Your task to perform on an android device: open app "Venmo" (install if not already installed) and go to login screen Image 0: 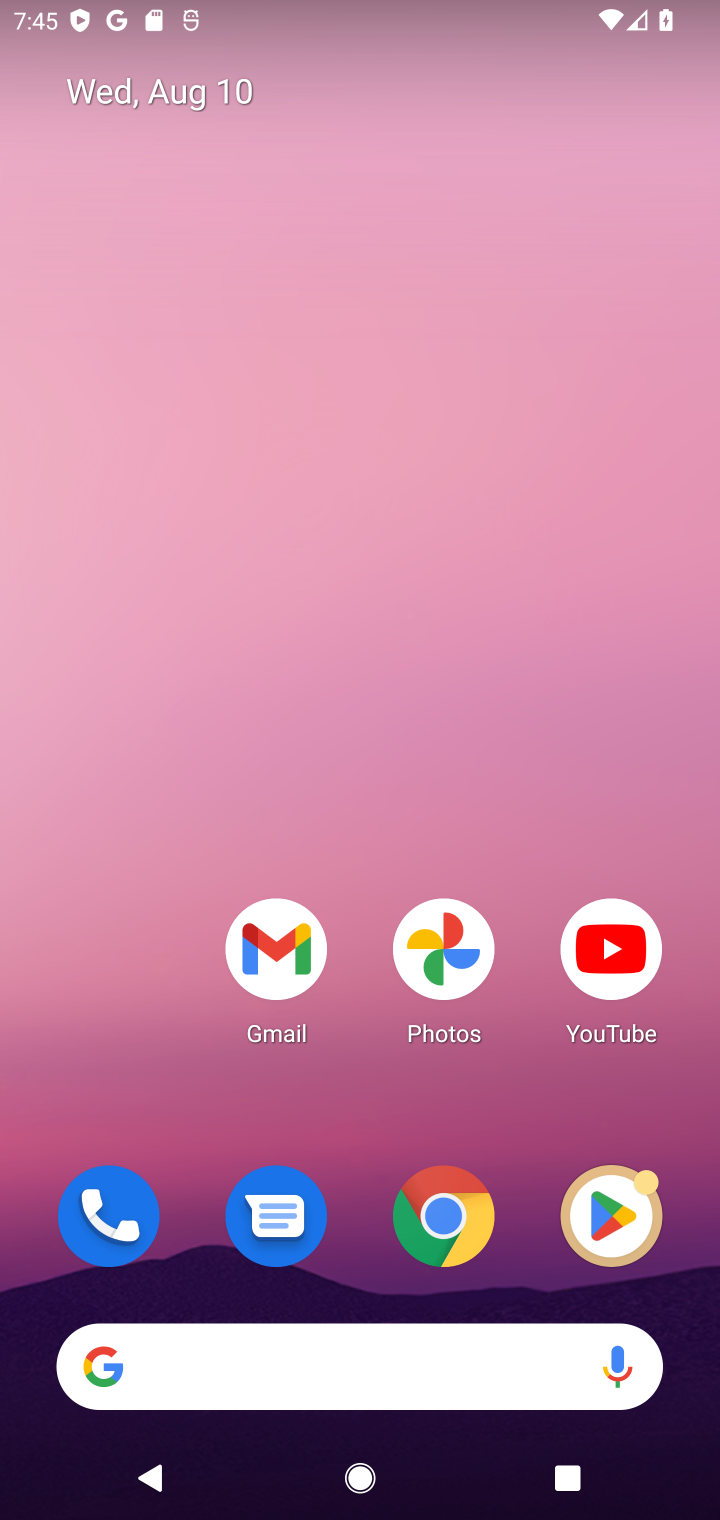
Step 0: click (593, 1219)
Your task to perform on an android device: open app "Venmo" (install if not already installed) and go to login screen Image 1: 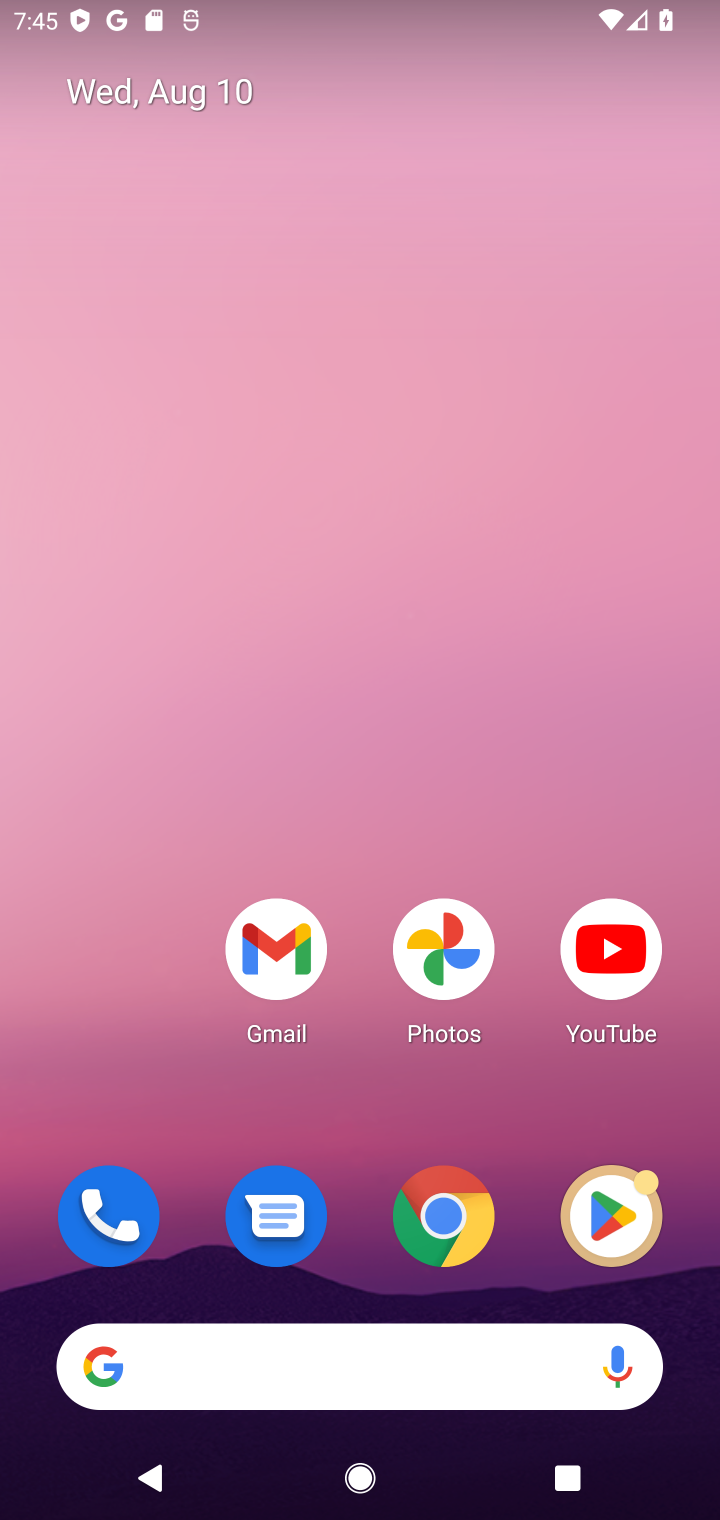
Step 1: click (600, 1219)
Your task to perform on an android device: open app "Venmo" (install if not already installed) and go to login screen Image 2: 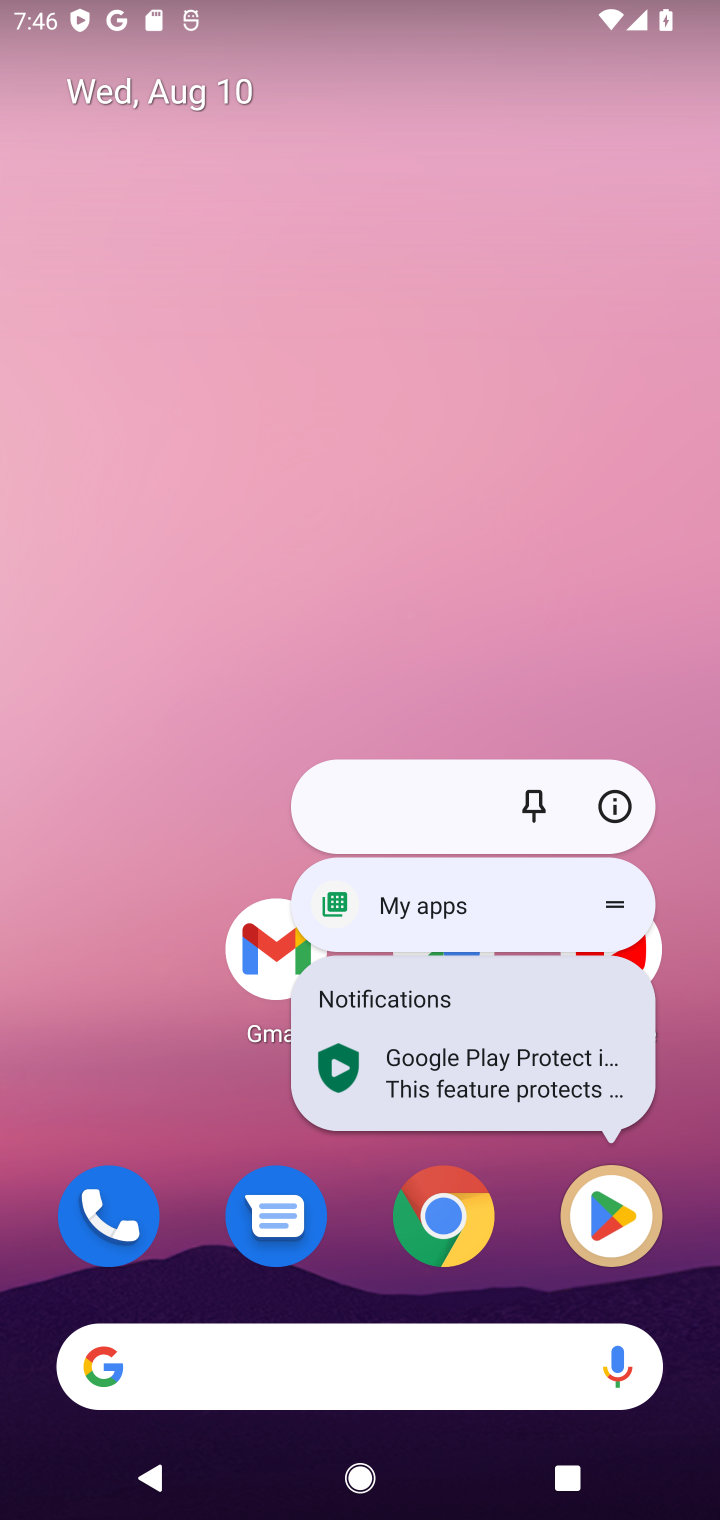
Step 2: click (592, 1225)
Your task to perform on an android device: open app "Venmo" (install if not already installed) and go to login screen Image 3: 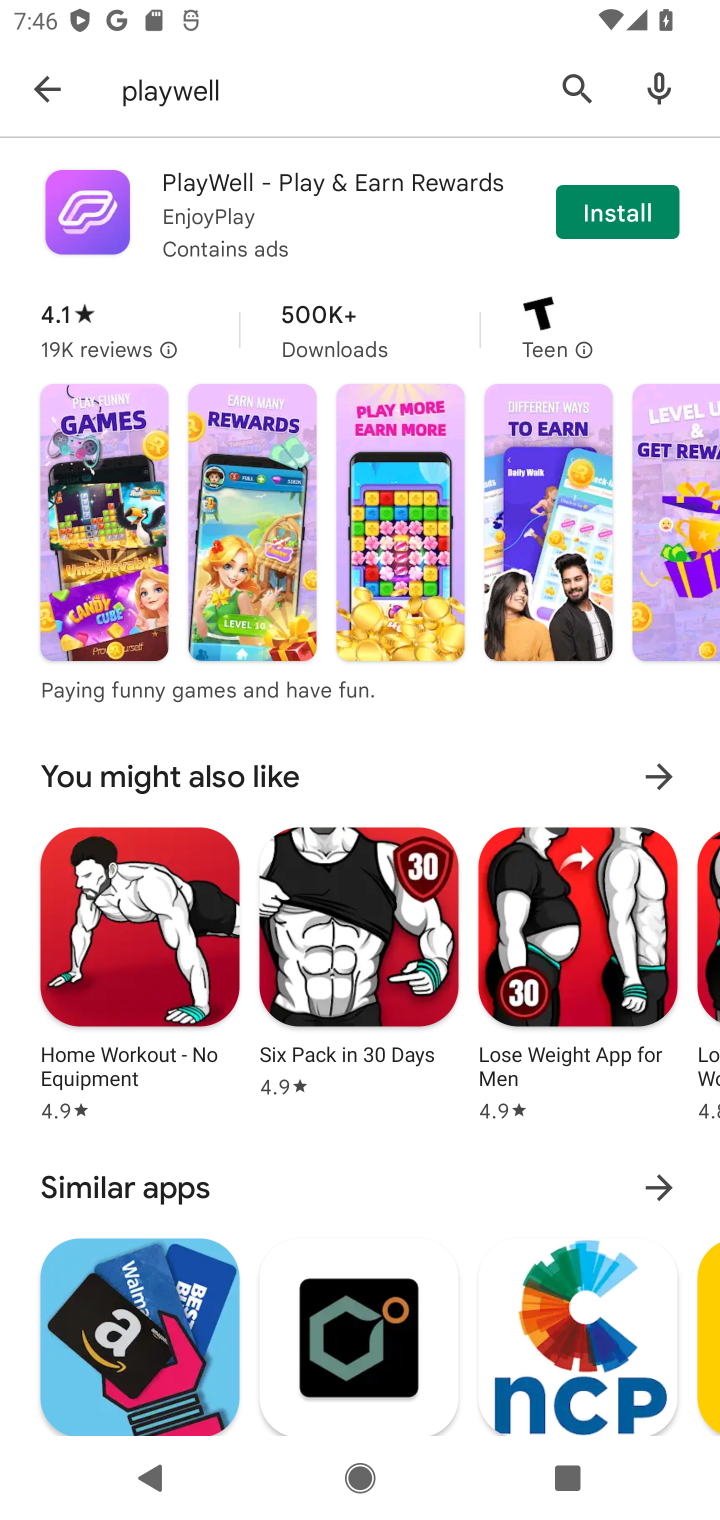
Step 3: click (563, 86)
Your task to perform on an android device: open app "Venmo" (install if not already installed) and go to login screen Image 4: 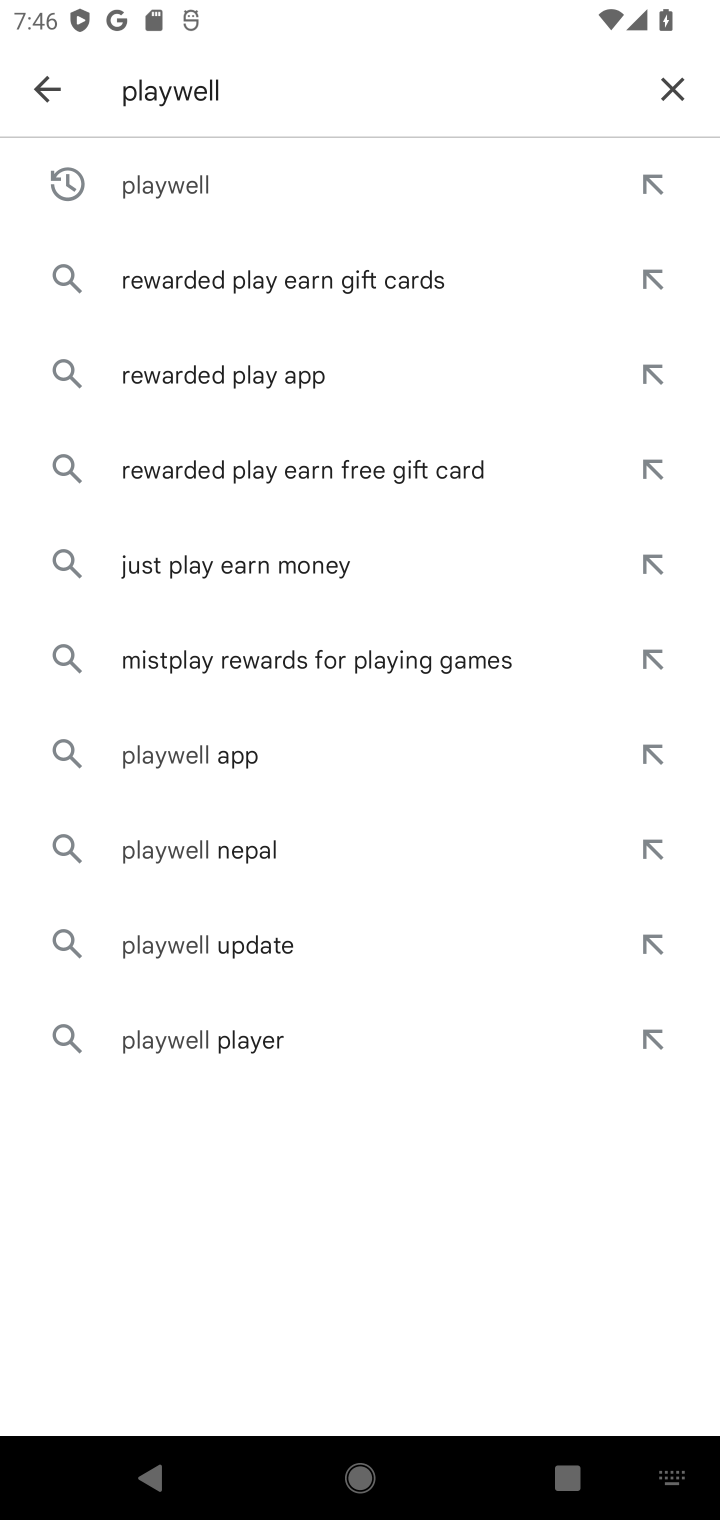
Step 4: click (682, 80)
Your task to perform on an android device: open app "Venmo" (install if not already installed) and go to login screen Image 5: 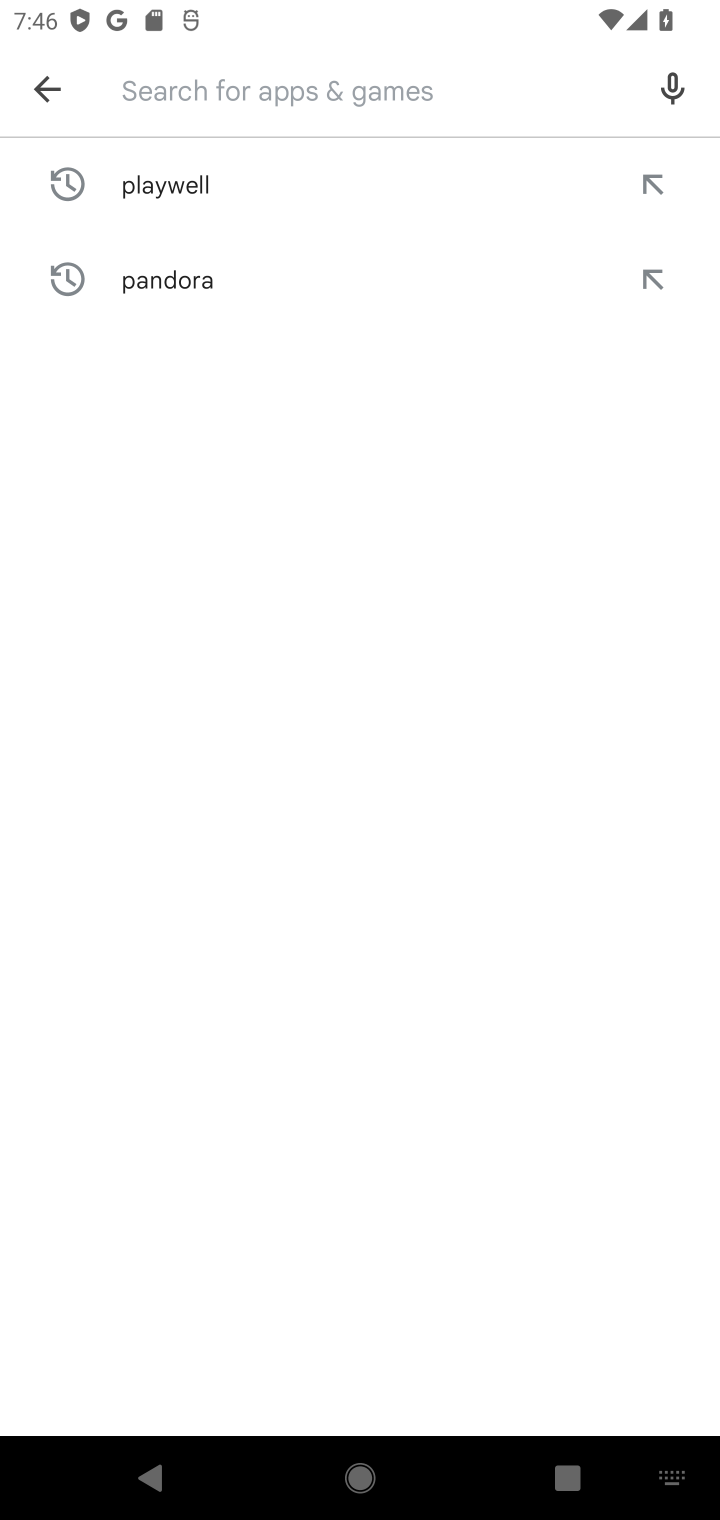
Step 5: click (231, 81)
Your task to perform on an android device: open app "Venmo" (install if not already installed) and go to login screen Image 6: 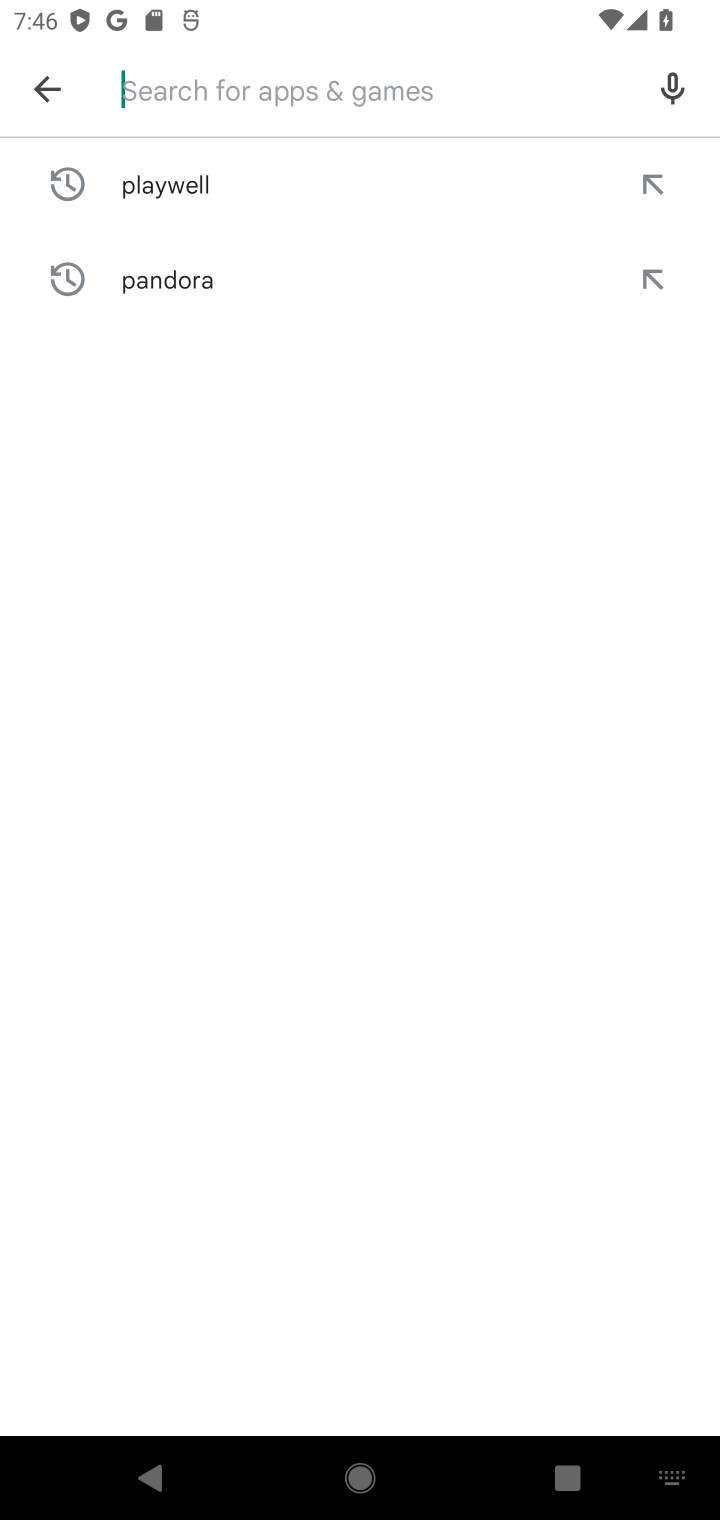
Step 6: type "venmo"
Your task to perform on an android device: open app "Venmo" (install if not already installed) and go to login screen Image 7: 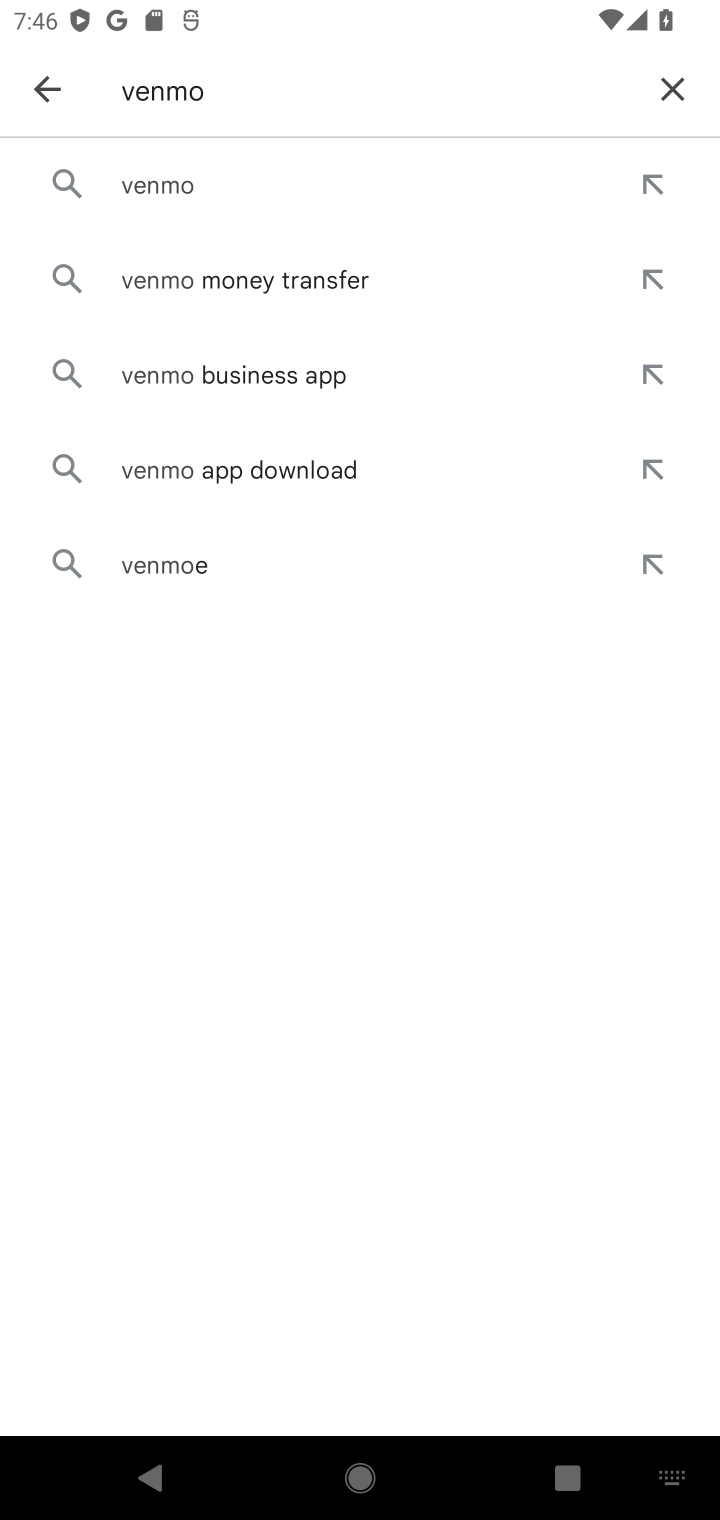
Step 7: click (243, 191)
Your task to perform on an android device: open app "Venmo" (install if not already installed) and go to login screen Image 8: 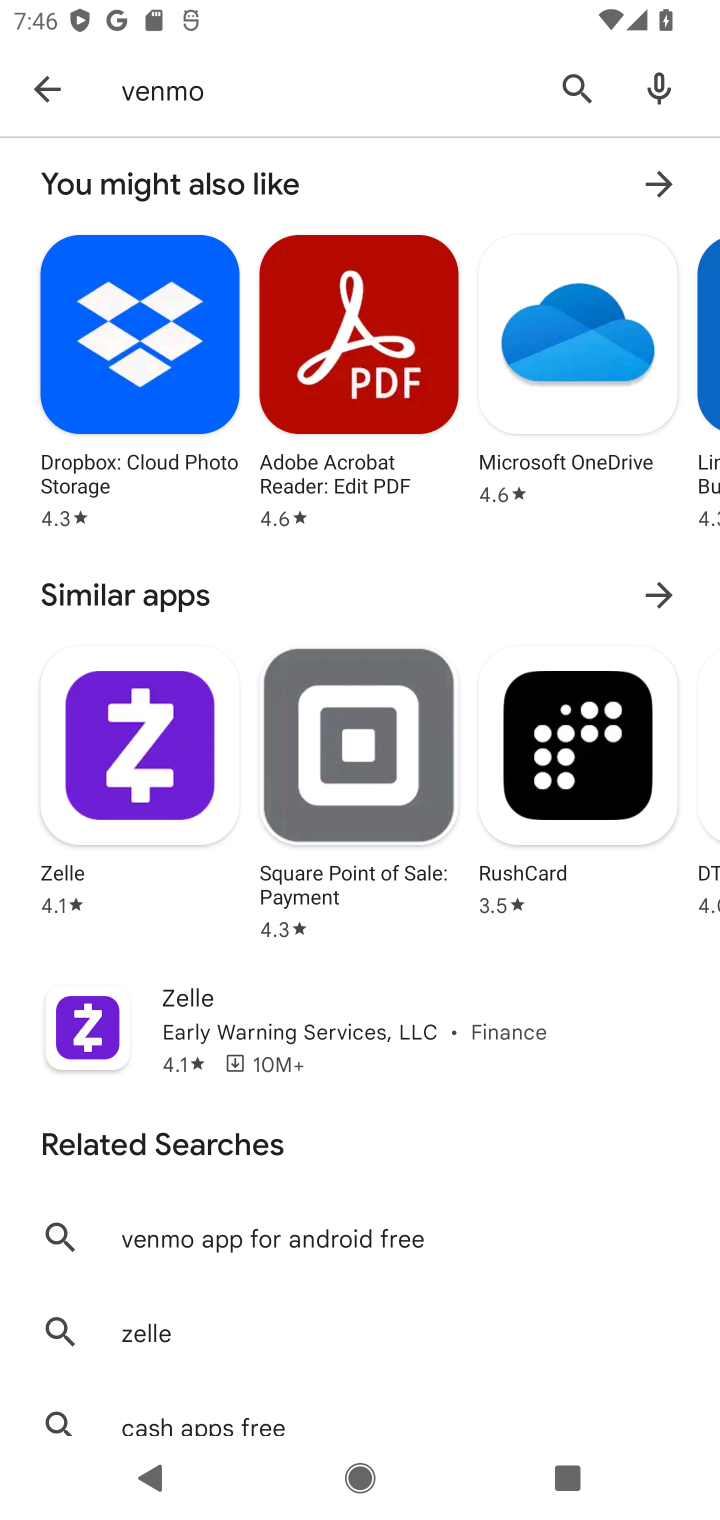
Step 8: task complete